Your task to perform on an android device: Open the map Image 0: 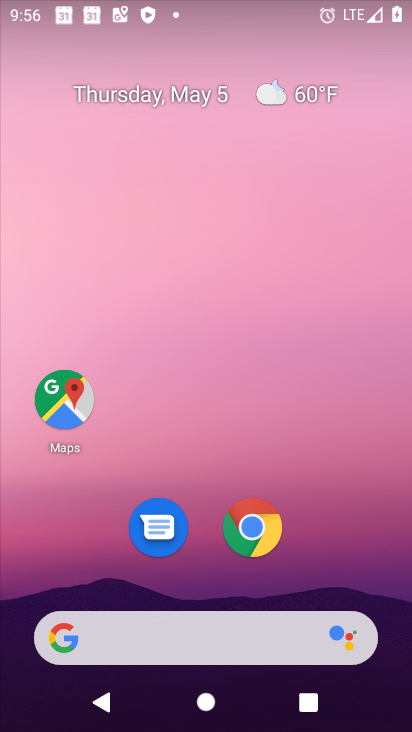
Step 0: click (54, 396)
Your task to perform on an android device: Open the map Image 1: 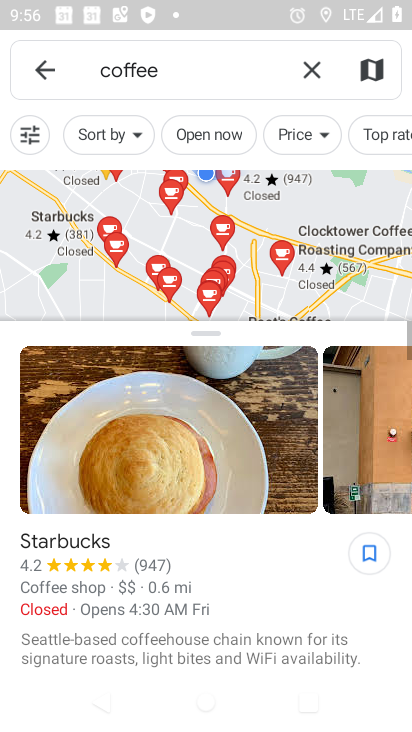
Step 1: task complete